Your task to perform on an android device: Open calendar and show me the first week of next month Image 0: 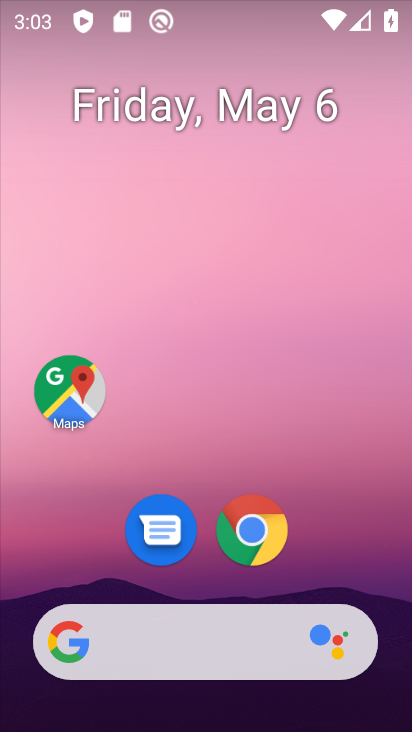
Step 0: drag from (192, 581) to (252, 112)
Your task to perform on an android device: Open calendar and show me the first week of next month Image 1: 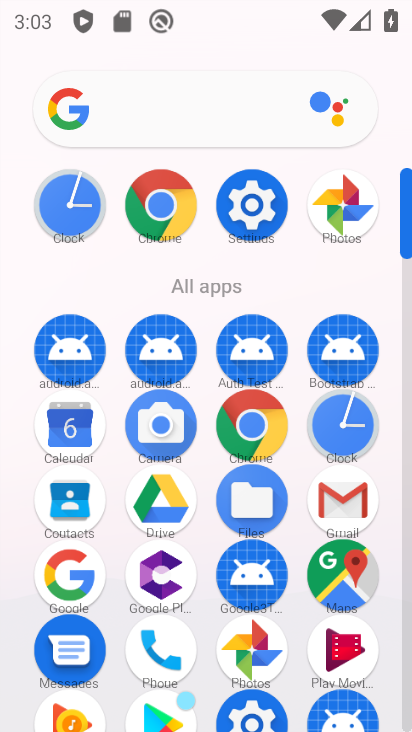
Step 1: drag from (256, 534) to (253, 359)
Your task to perform on an android device: Open calendar and show me the first week of next month Image 2: 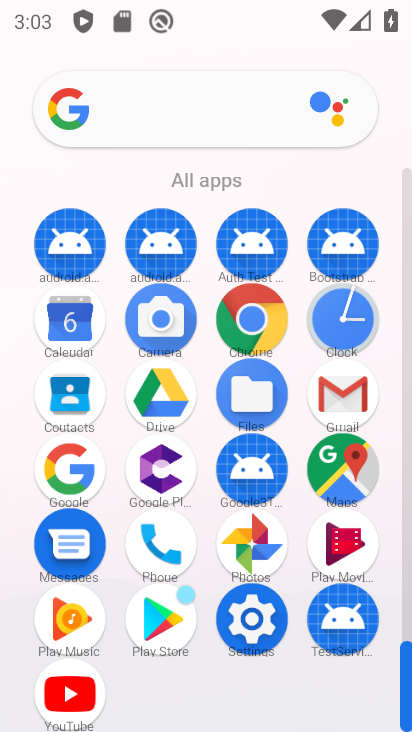
Step 2: click (78, 332)
Your task to perform on an android device: Open calendar and show me the first week of next month Image 3: 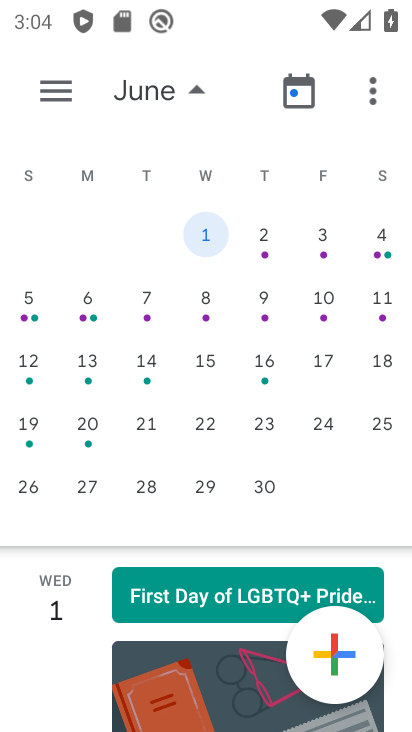
Step 3: task complete